Your task to perform on an android device: Open Google Chrome and click the shortcut for Amazon.com Image 0: 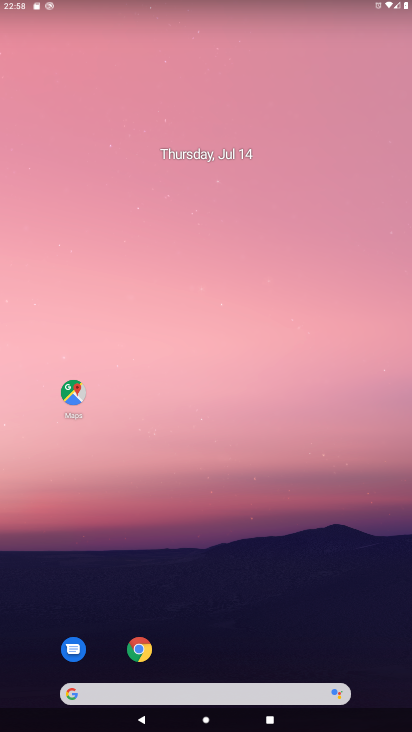
Step 0: click (144, 652)
Your task to perform on an android device: Open Google Chrome and click the shortcut for Amazon.com Image 1: 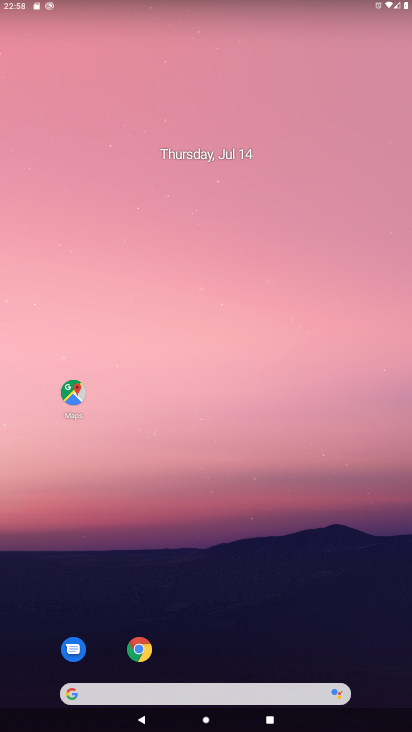
Step 1: click (144, 652)
Your task to perform on an android device: Open Google Chrome and click the shortcut for Amazon.com Image 2: 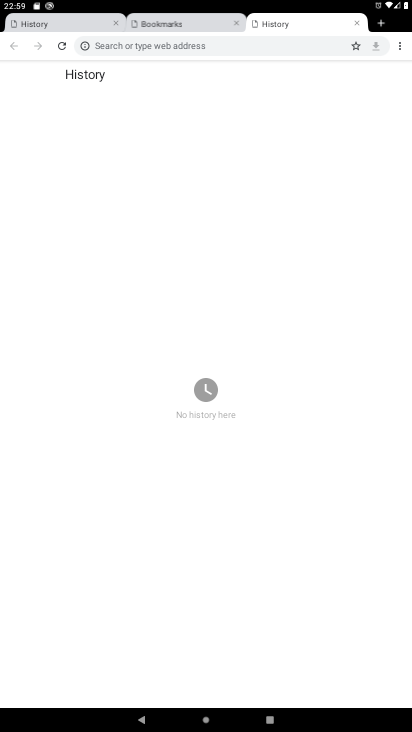
Step 2: click (400, 46)
Your task to perform on an android device: Open Google Chrome and click the shortcut for Amazon.com Image 3: 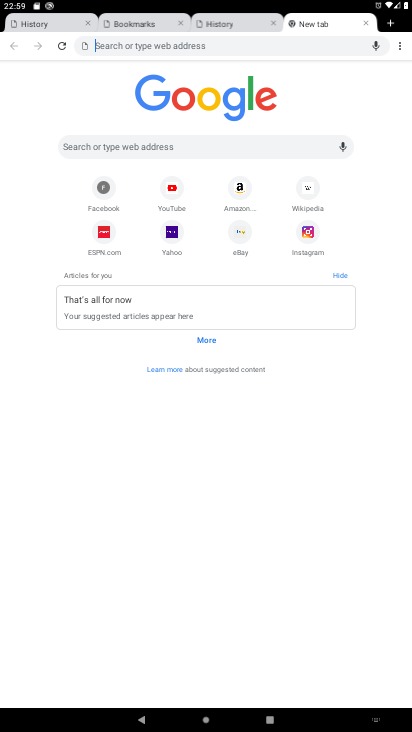
Step 3: click (237, 188)
Your task to perform on an android device: Open Google Chrome and click the shortcut for Amazon.com Image 4: 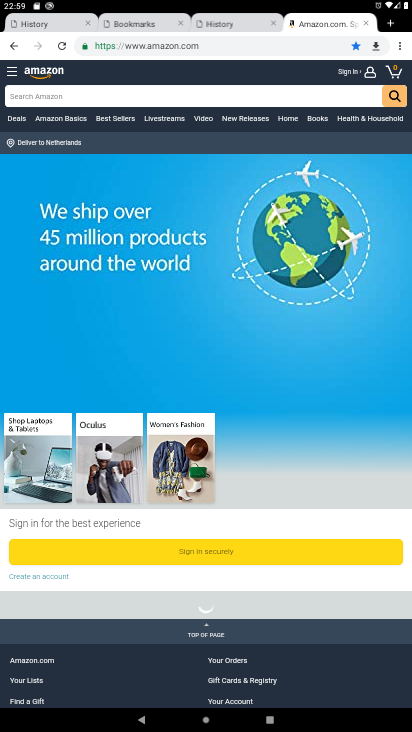
Step 4: task complete